Your task to perform on an android device: Open settings Image 0: 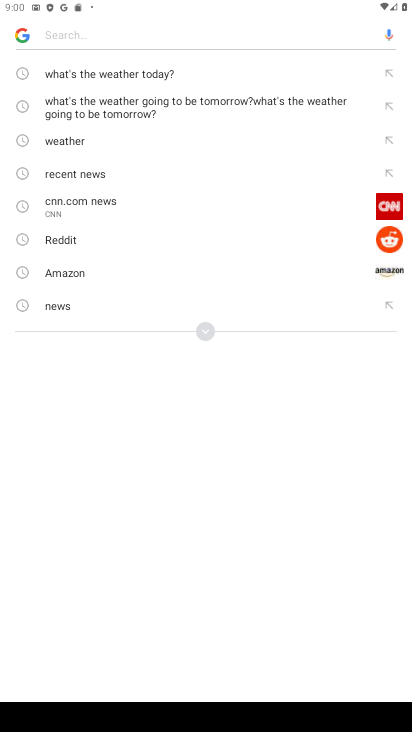
Step 0: press home button
Your task to perform on an android device: Open settings Image 1: 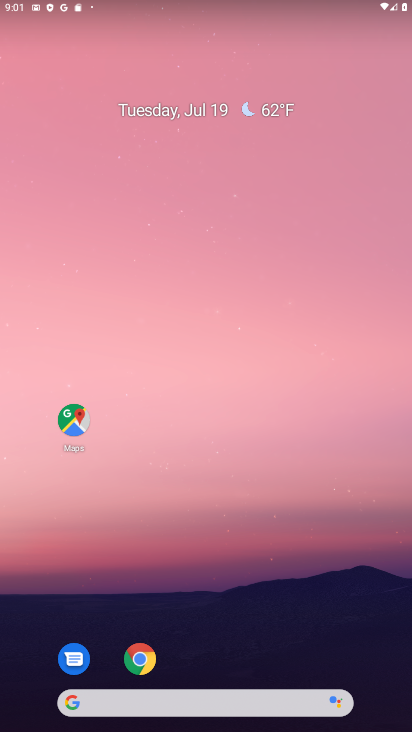
Step 1: drag from (355, 690) to (317, 176)
Your task to perform on an android device: Open settings Image 2: 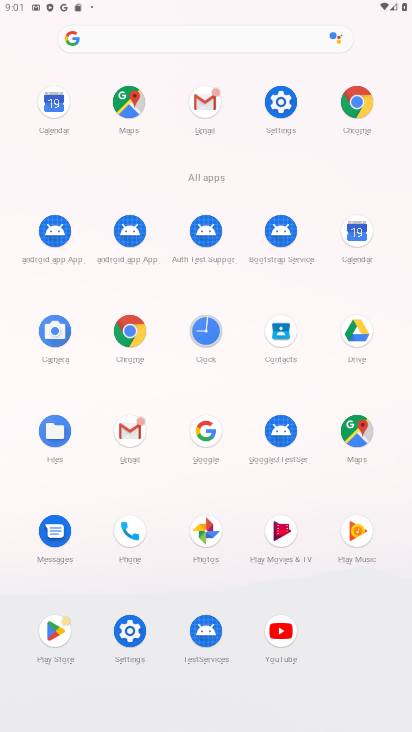
Step 2: click (142, 632)
Your task to perform on an android device: Open settings Image 3: 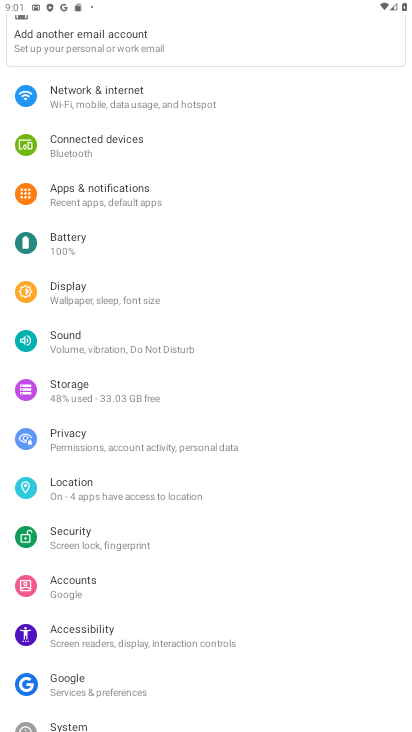
Step 3: task complete